Your task to perform on an android device: Go to Amazon Image 0: 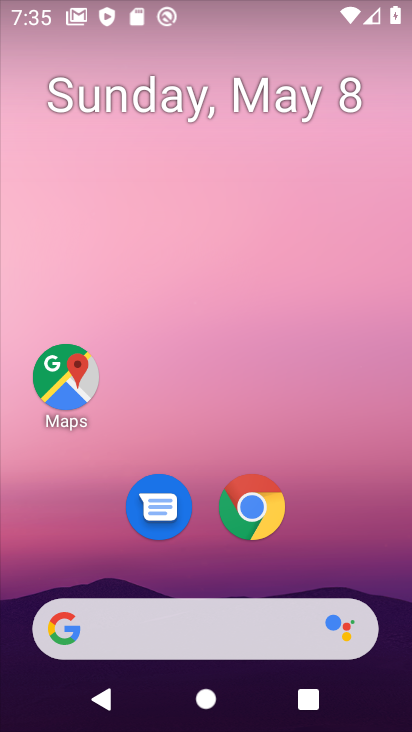
Step 0: click (260, 636)
Your task to perform on an android device: Go to Amazon Image 1: 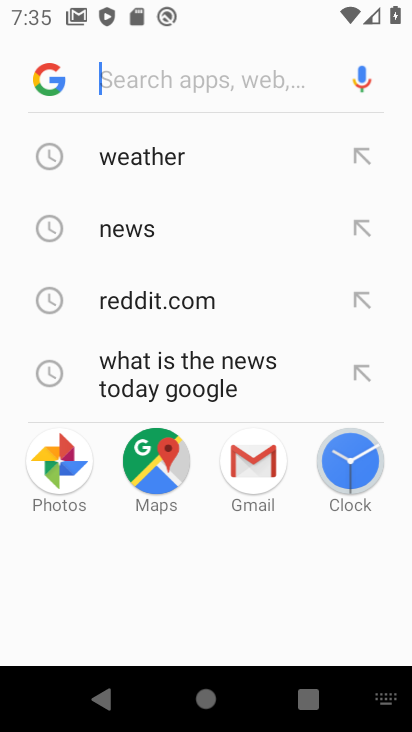
Step 1: type "amazon"
Your task to perform on an android device: Go to Amazon Image 2: 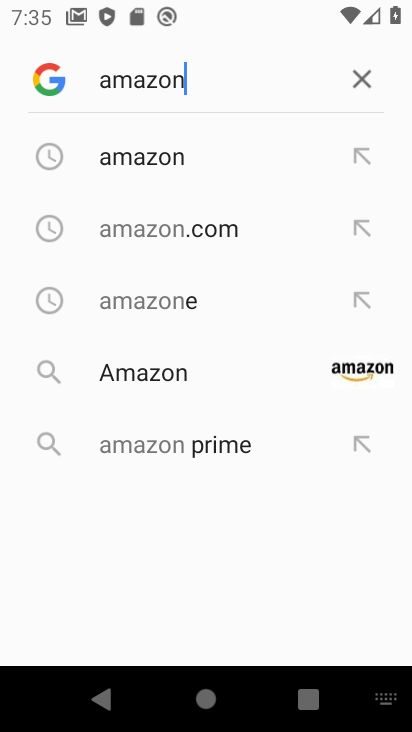
Step 2: click (214, 167)
Your task to perform on an android device: Go to Amazon Image 3: 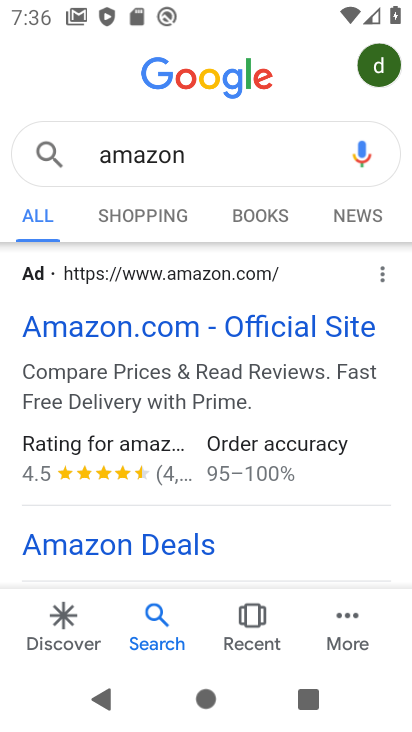
Step 3: task complete